Your task to perform on an android device: Show the shopping cart on amazon. Image 0: 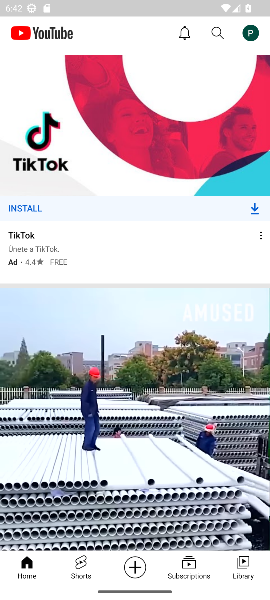
Step 0: press home button
Your task to perform on an android device: Show the shopping cart on amazon. Image 1: 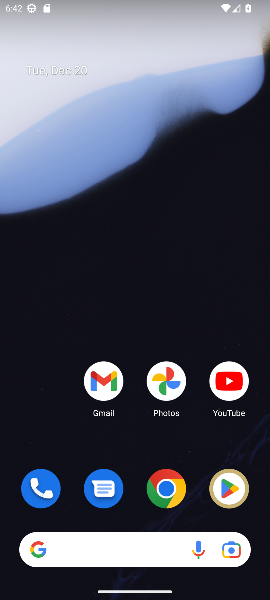
Step 1: drag from (43, 309) to (51, 57)
Your task to perform on an android device: Show the shopping cart on amazon. Image 2: 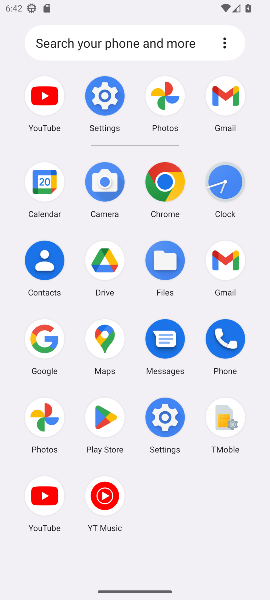
Step 2: click (49, 337)
Your task to perform on an android device: Show the shopping cart on amazon. Image 3: 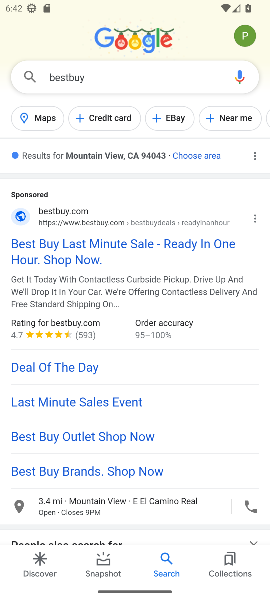
Step 3: click (119, 66)
Your task to perform on an android device: Show the shopping cart on amazon. Image 4: 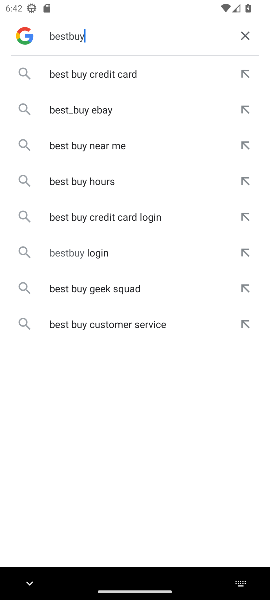
Step 4: click (245, 36)
Your task to perform on an android device: Show the shopping cart on amazon. Image 5: 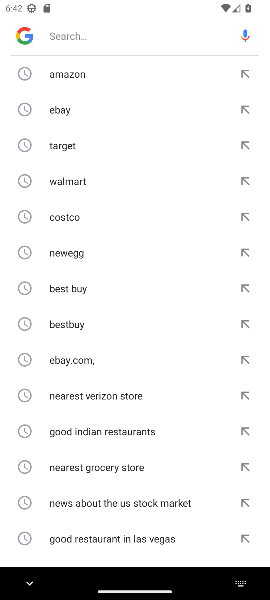
Step 5: type "amazon"
Your task to perform on an android device: Show the shopping cart on amazon. Image 6: 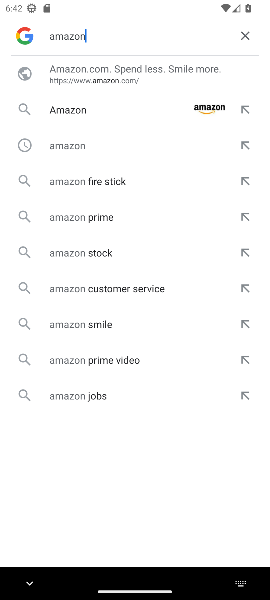
Step 6: press enter
Your task to perform on an android device: Show the shopping cart on amazon. Image 7: 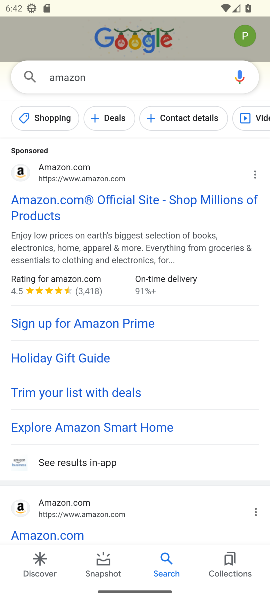
Step 7: click (76, 194)
Your task to perform on an android device: Show the shopping cart on amazon. Image 8: 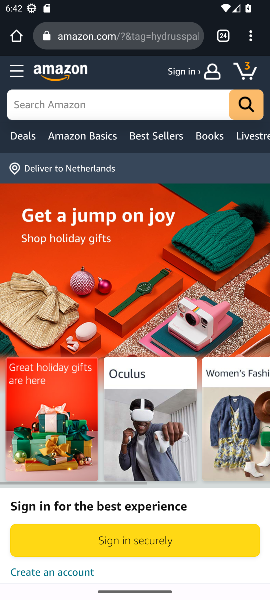
Step 8: click (246, 71)
Your task to perform on an android device: Show the shopping cart on amazon. Image 9: 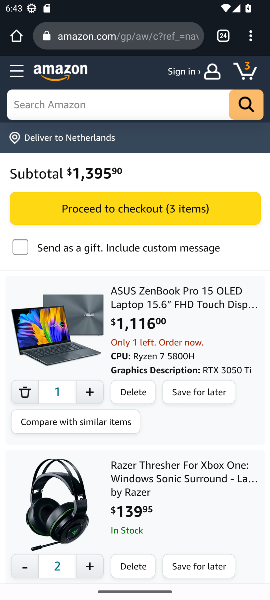
Step 9: task complete